Your task to perform on an android device: open the mobile data screen to see how much data has been used Image 0: 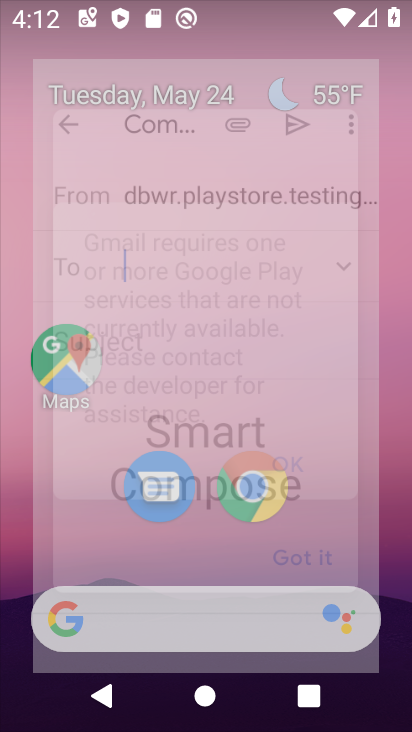
Step 0: click (256, 475)
Your task to perform on an android device: open the mobile data screen to see how much data has been used Image 1: 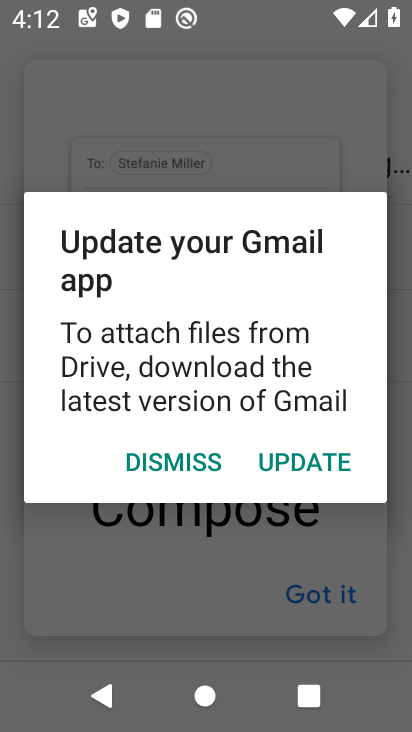
Step 1: press home button
Your task to perform on an android device: open the mobile data screen to see how much data has been used Image 2: 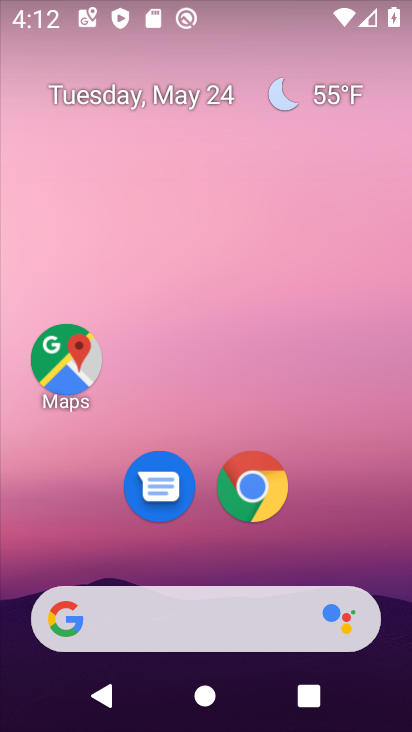
Step 2: drag from (303, 515) to (251, 191)
Your task to perform on an android device: open the mobile data screen to see how much data has been used Image 3: 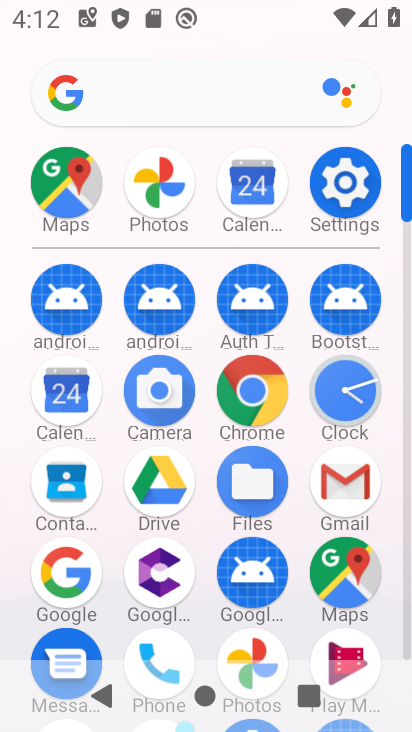
Step 3: click (328, 179)
Your task to perform on an android device: open the mobile data screen to see how much data has been used Image 4: 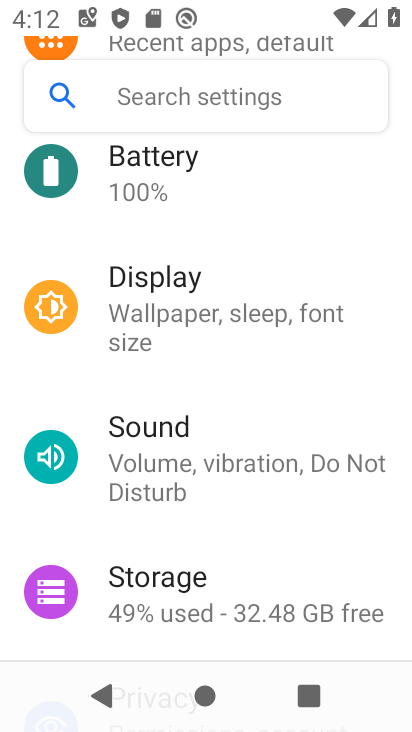
Step 4: drag from (191, 226) to (209, 610)
Your task to perform on an android device: open the mobile data screen to see how much data has been used Image 5: 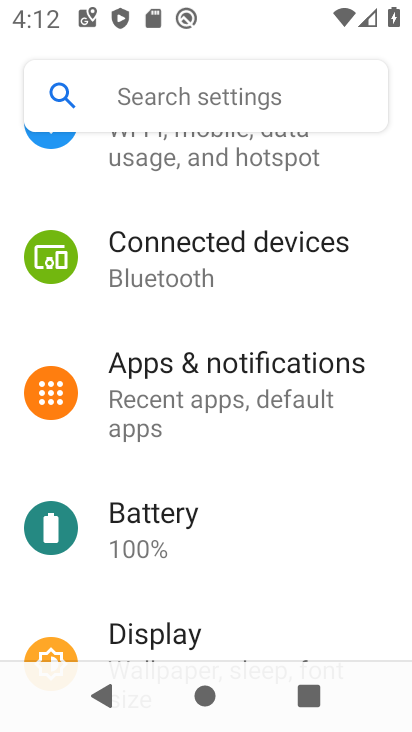
Step 5: drag from (184, 231) to (200, 519)
Your task to perform on an android device: open the mobile data screen to see how much data has been used Image 6: 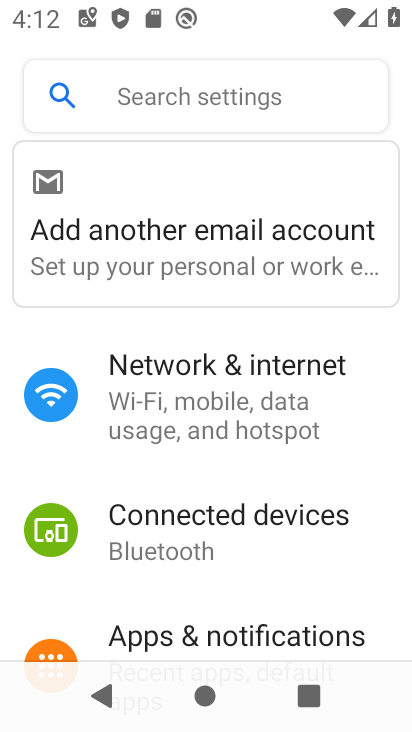
Step 6: click (191, 379)
Your task to perform on an android device: open the mobile data screen to see how much data has been used Image 7: 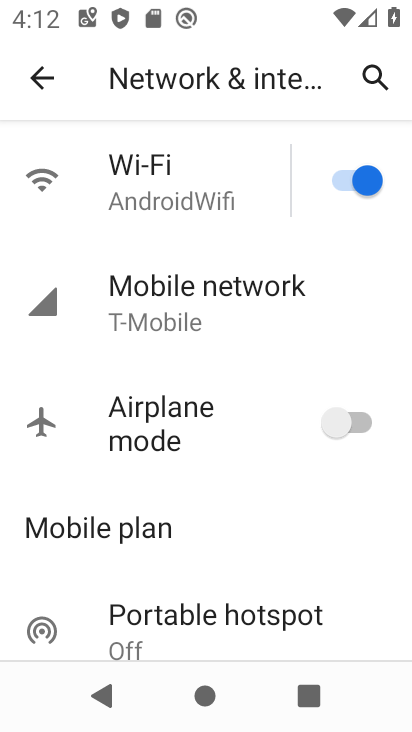
Step 7: click (176, 307)
Your task to perform on an android device: open the mobile data screen to see how much data has been used Image 8: 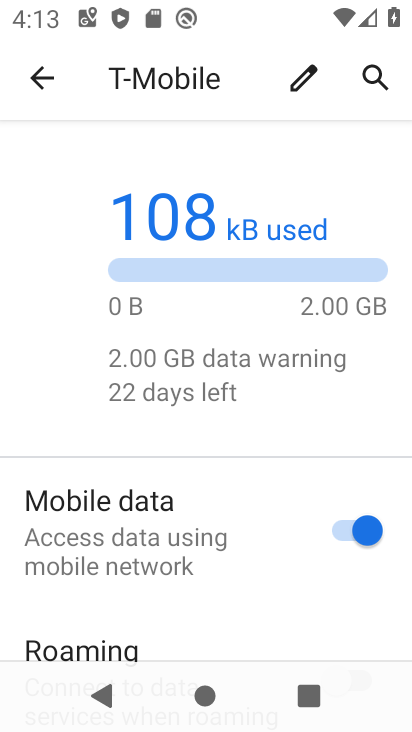
Step 8: task complete